Your task to perform on an android device: How do I get to the nearest T-Mobile Store? Image 0: 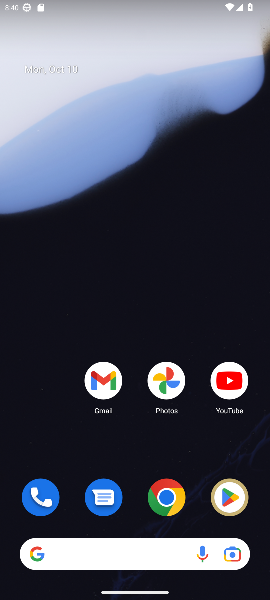
Step 0: drag from (119, 457) to (131, 196)
Your task to perform on an android device: How do I get to the nearest T-Mobile Store? Image 1: 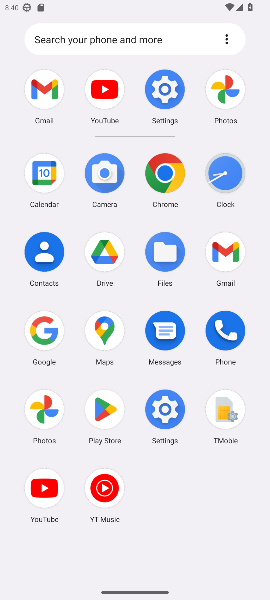
Step 1: click (43, 327)
Your task to perform on an android device: How do I get to the nearest T-Mobile Store? Image 2: 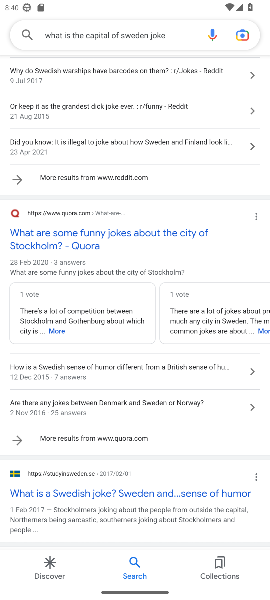
Step 2: click (143, 30)
Your task to perform on an android device: How do I get to the nearest T-Mobile Store? Image 3: 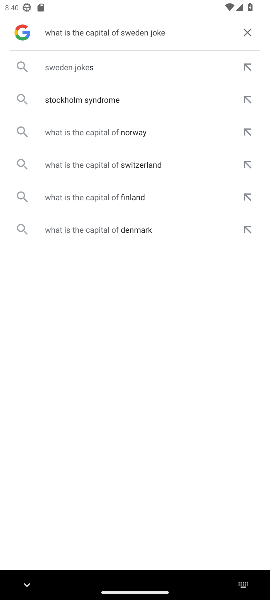
Step 3: click (252, 28)
Your task to perform on an android device: How do I get to the nearest T-Mobile Store? Image 4: 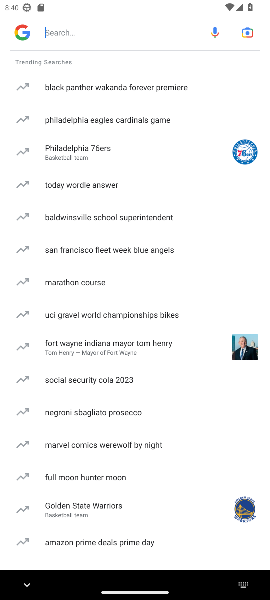
Step 4: click (83, 23)
Your task to perform on an android device: How do I get to the nearest T-Mobile Store? Image 5: 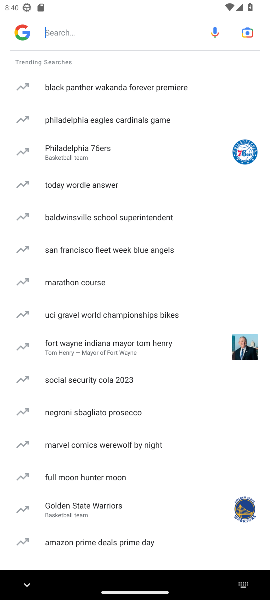
Step 5: type "How do I get to the nearest T-Mobile Store "
Your task to perform on an android device: How do I get to the nearest T-Mobile Store? Image 6: 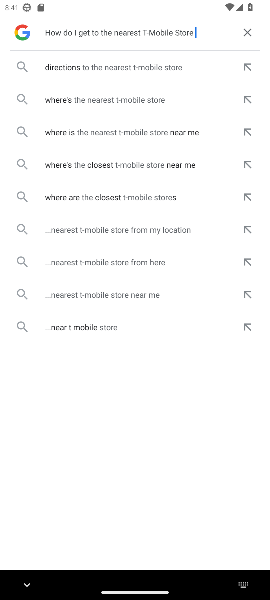
Step 6: click (104, 137)
Your task to perform on an android device: How do I get to the nearest T-Mobile Store? Image 7: 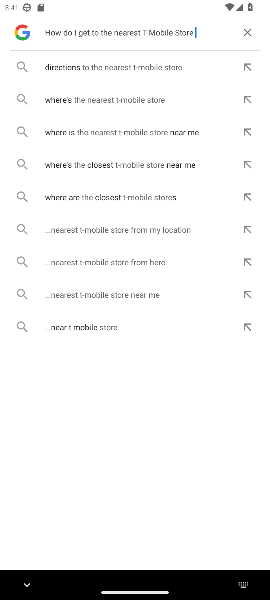
Step 7: click (104, 137)
Your task to perform on an android device: How do I get to the nearest T-Mobile Store? Image 8: 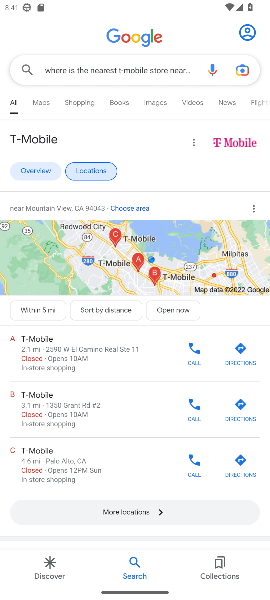
Step 8: click (73, 354)
Your task to perform on an android device: How do I get to the nearest T-Mobile Store? Image 9: 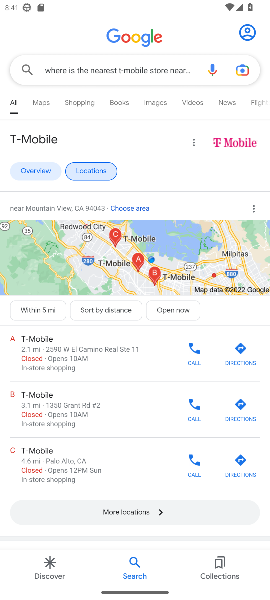
Step 9: click (73, 354)
Your task to perform on an android device: How do I get to the nearest T-Mobile Store? Image 10: 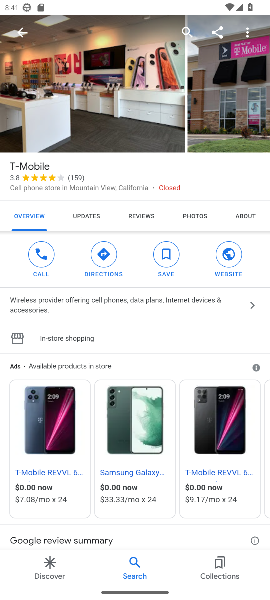
Step 10: task complete